Your task to perform on an android device: open a new tab in the chrome app Image 0: 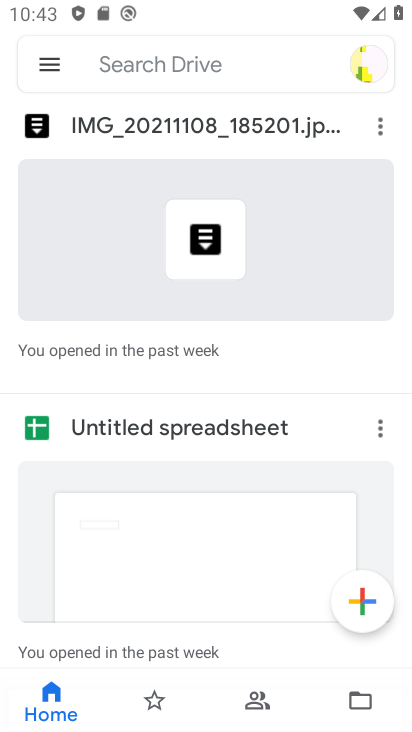
Step 0: press home button
Your task to perform on an android device: open a new tab in the chrome app Image 1: 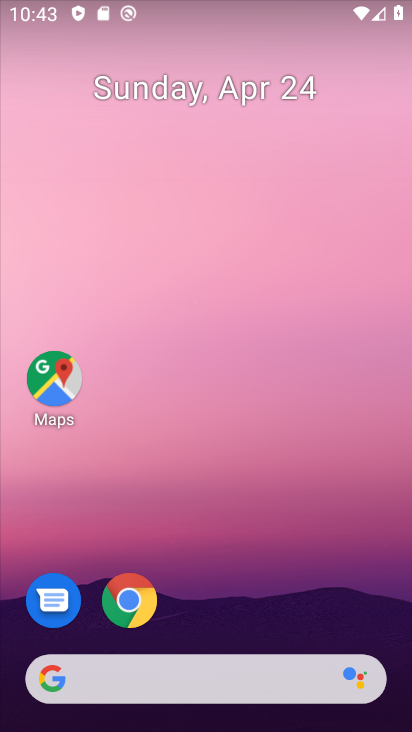
Step 1: click (126, 604)
Your task to perform on an android device: open a new tab in the chrome app Image 2: 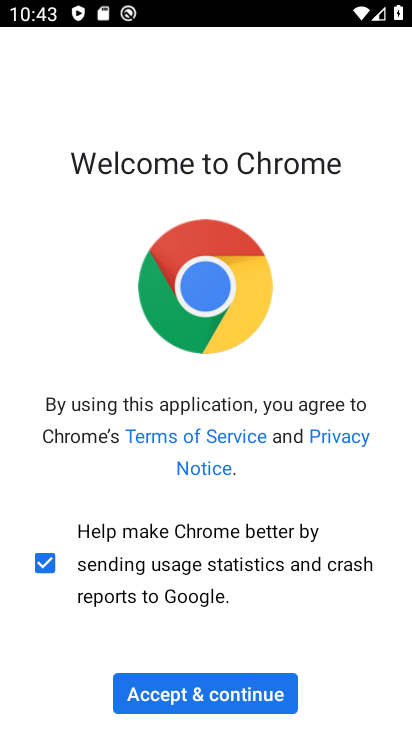
Step 2: click (223, 696)
Your task to perform on an android device: open a new tab in the chrome app Image 3: 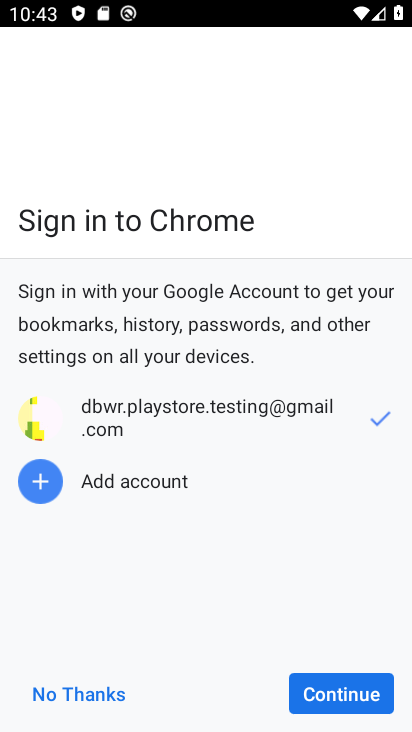
Step 3: click (361, 697)
Your task to perform on an android device: open a new tab in the chrome app Image 4: 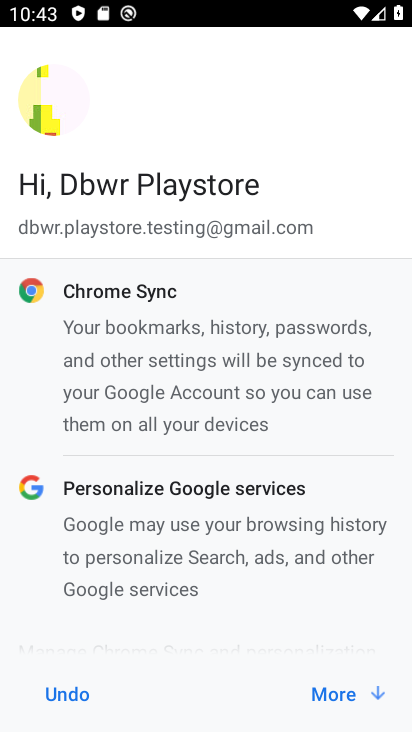
Step 4: click (357, 694)
Your task to perform on an android device: open a new tab in the chrome app Image 5: 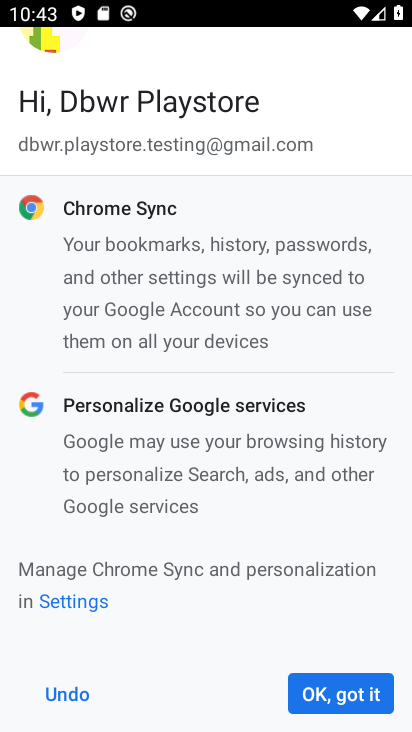
Step 5: click (357, 694)
Your task to perform on an android device: open a new tab in the chrome app Image 6: 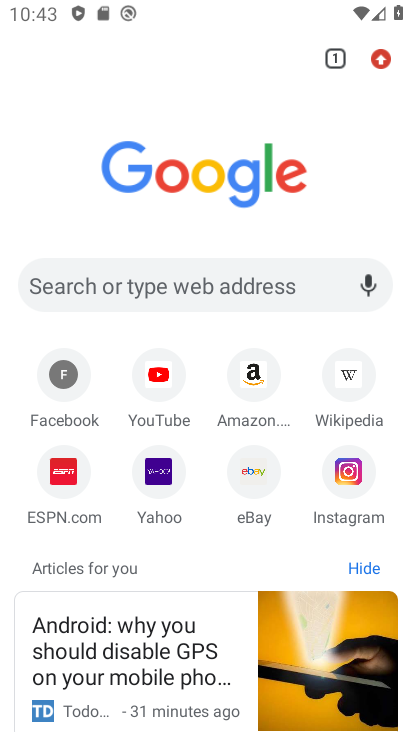
Step 6: task complete